Your task to perform on an android device: Open Yahoo.com Image 0: 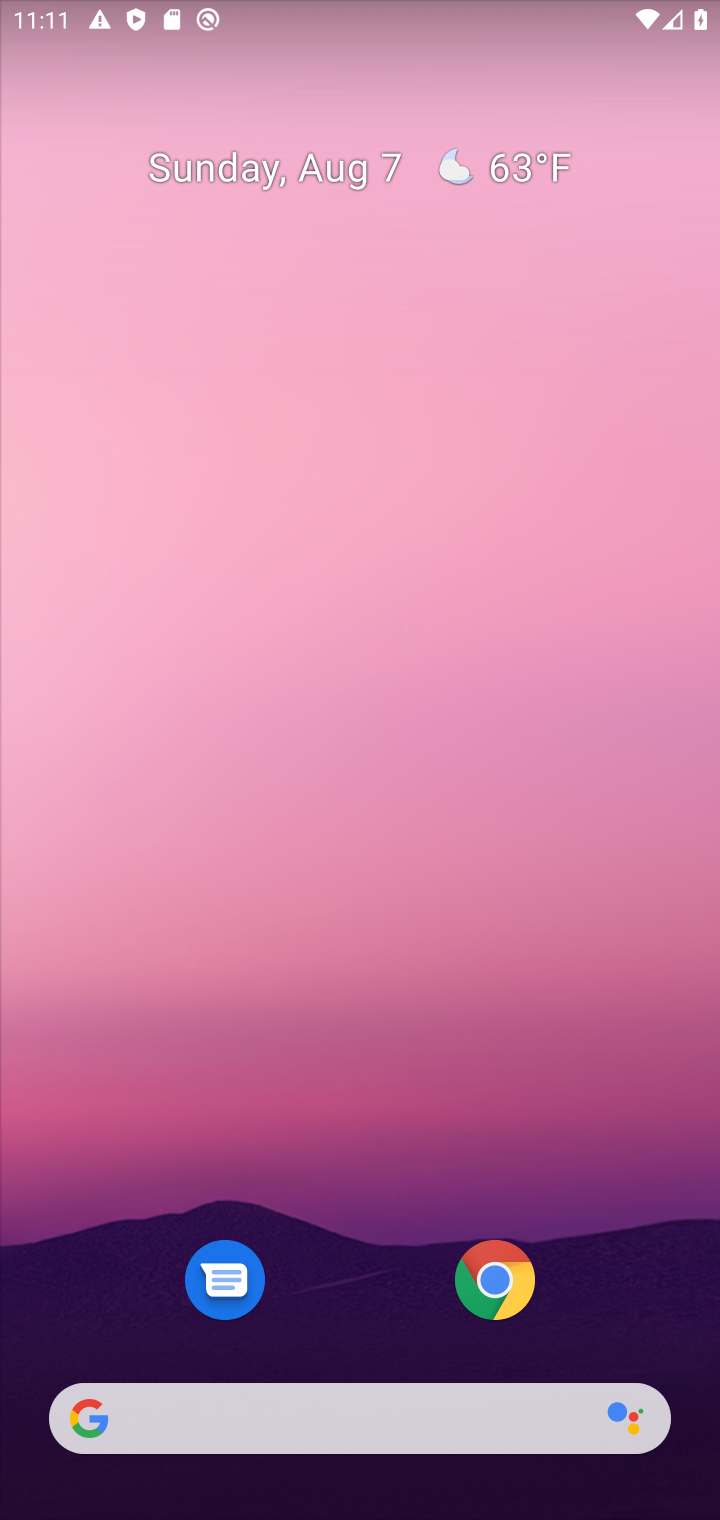
Step 0: click (488, 1292)
Your task to perform on an android device: Open Yahoo.com Image 1: 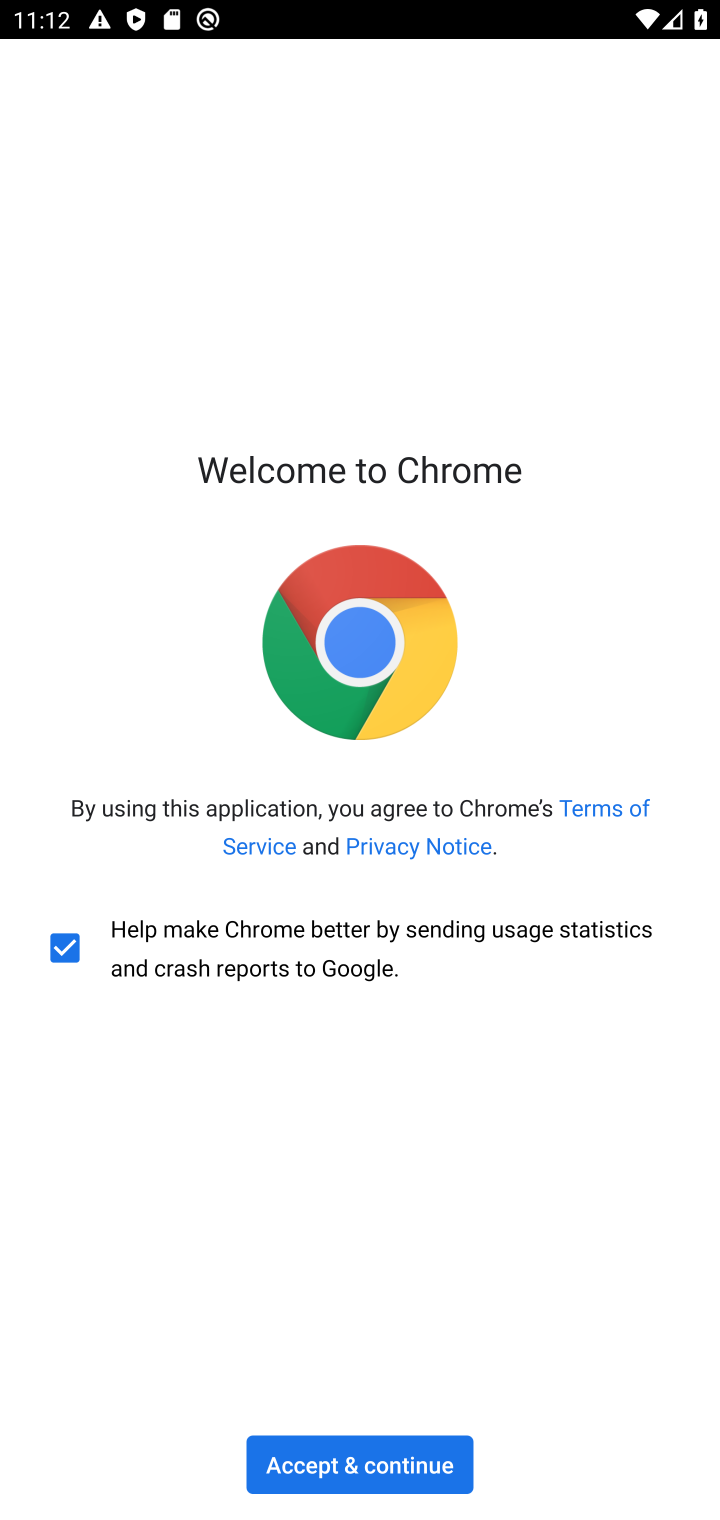
Step 1: click (369, 1469)
Your task to perform on an android device: Open Yahoo.com Image 2: 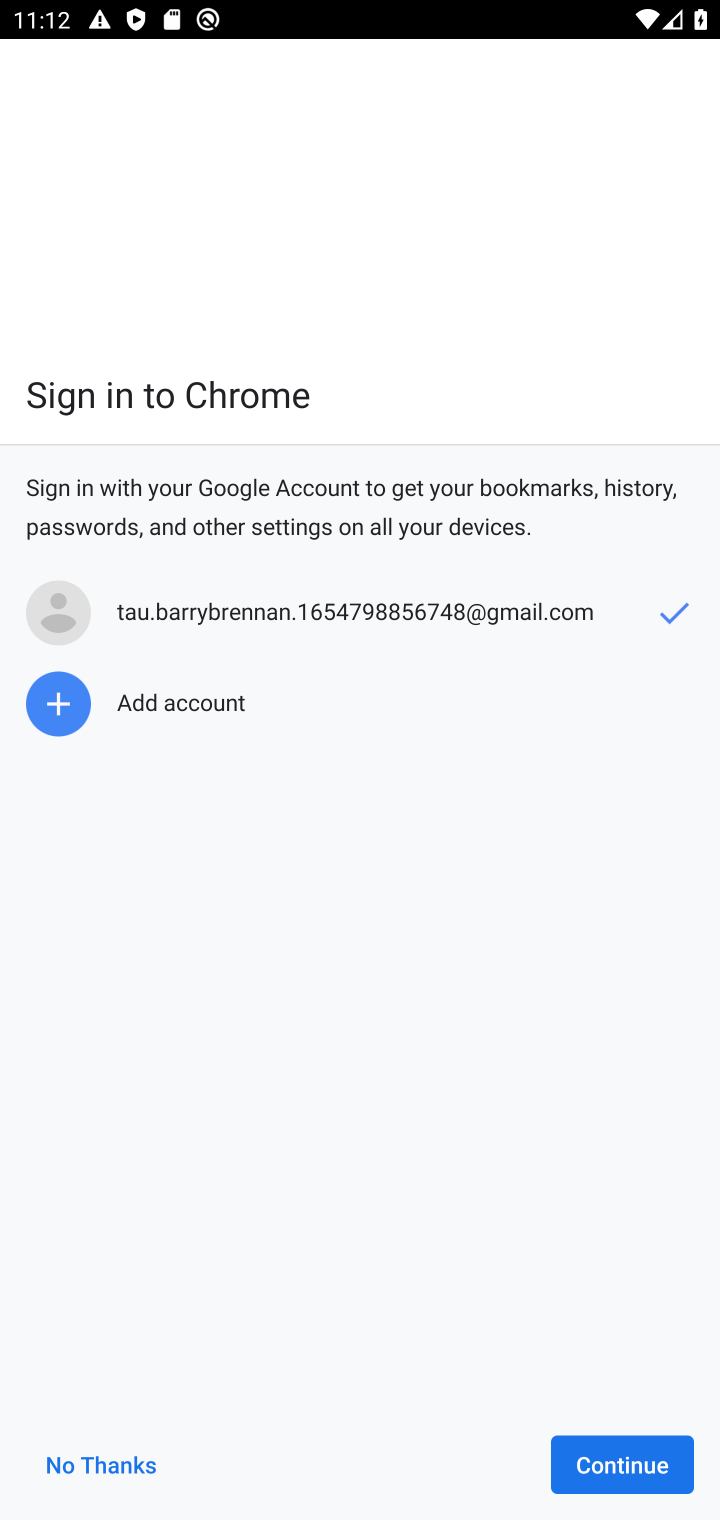
Step 2: click (636, 1459)
Your task to perform on an android device: Open Yahoo.com Image 3: 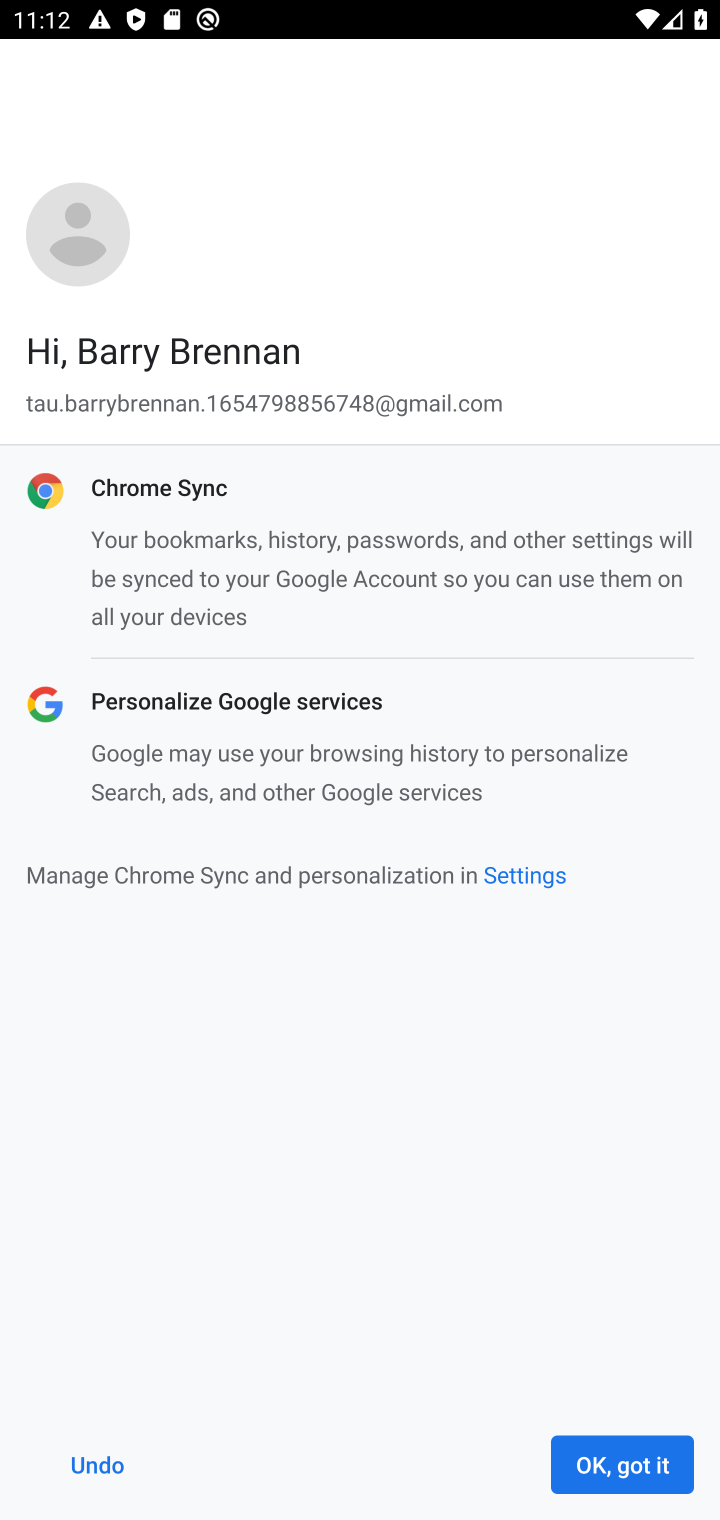
Step 3: click (618, 1470)
Your task to perform on an android device: Open Yahoo.com Image 4: 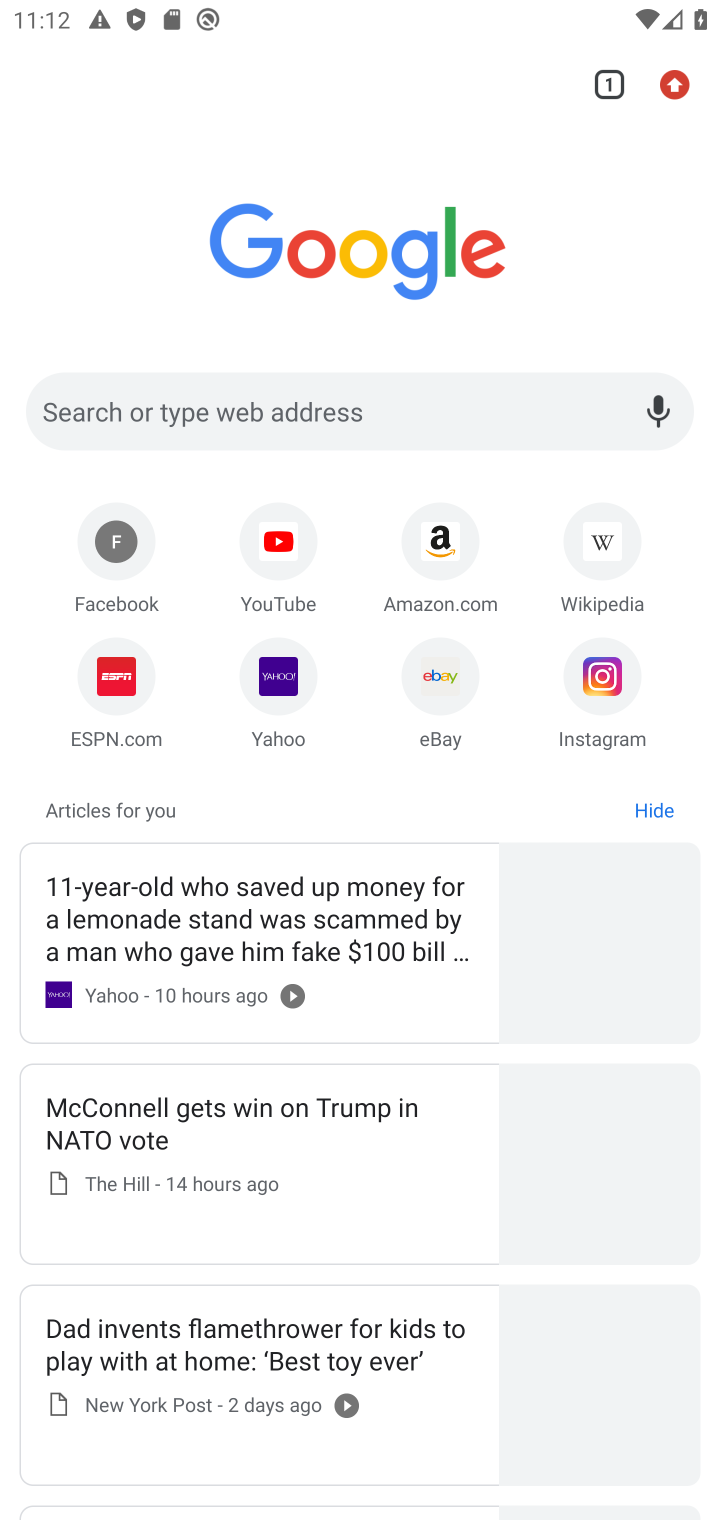
Step 4: click (282, 674)
Your task to perform on an android device: Open Yahoo.com Image 5: 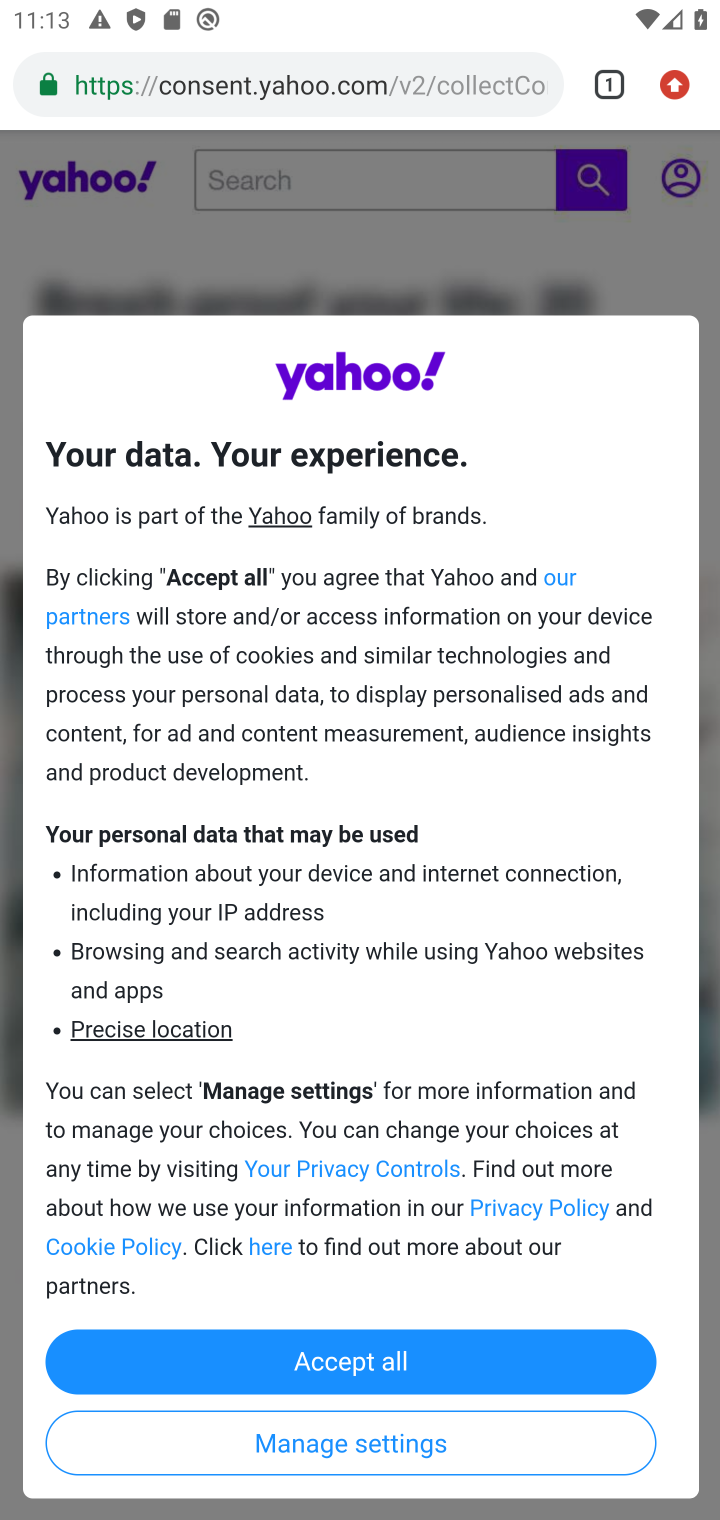
Step 5: task complete